Your task to perform on an android device: turn on airplane mode Image 0: 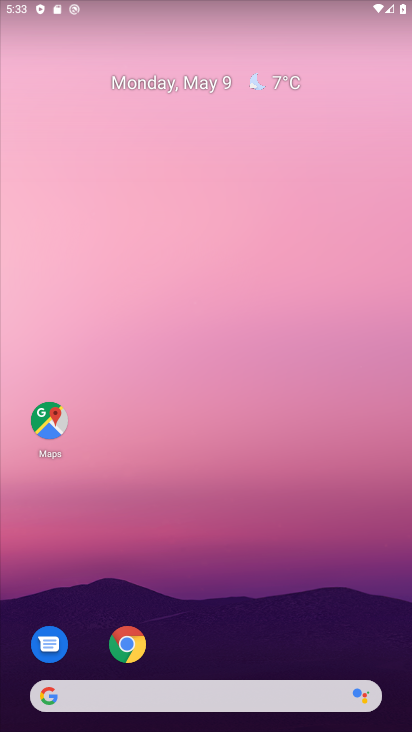
Step 0: drag from (226, 539) to (222, 105)
Your task to perform on an android device: turn on airplane mode Image 1: 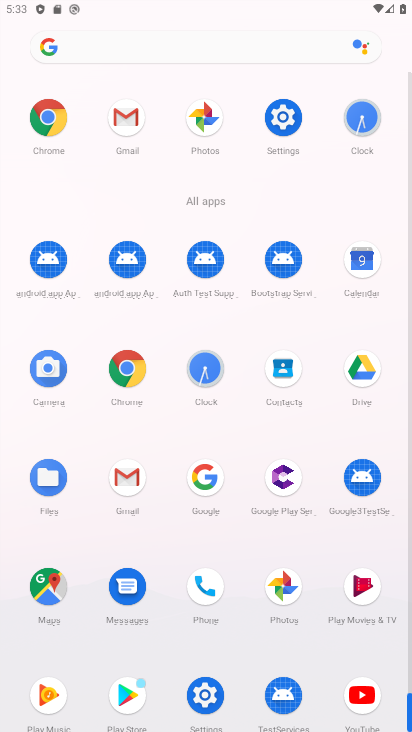
Step 1: click (281, 111)
Your task to perform on an android device: turn on airplane mode Image 2: 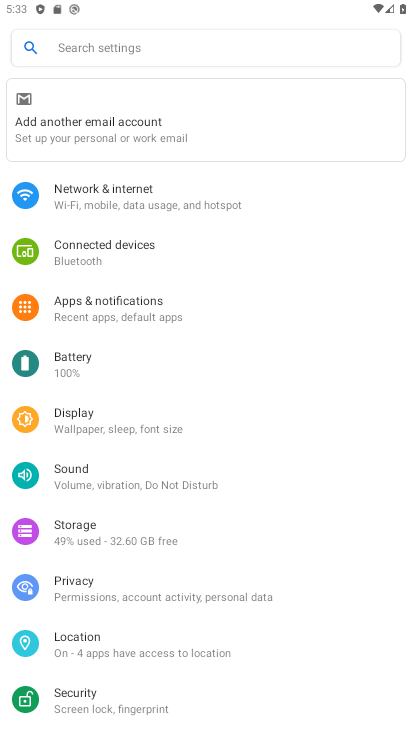
Step 2: click (149, 192)
Your task to perform on an android device: turn on airplane mode Image 3: 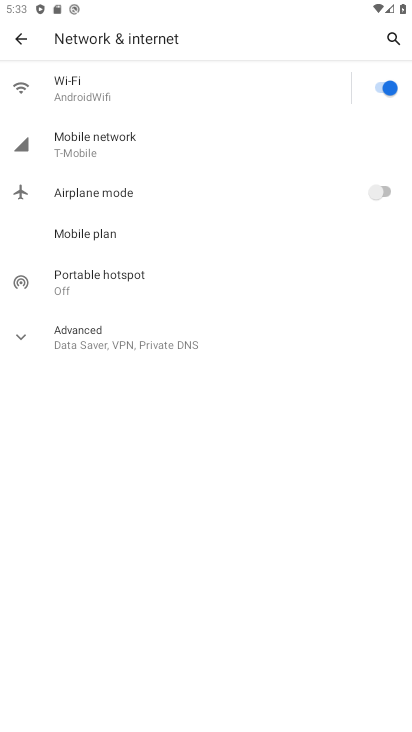
Step 3: click (392, 192)
Your task to perform on an android device: turn on airplane mode Image 4: 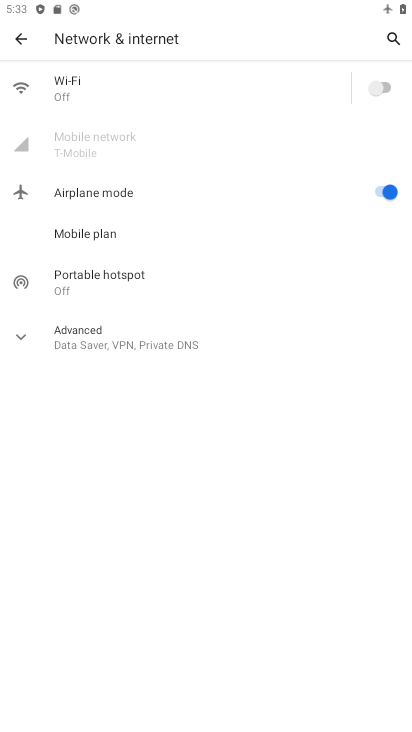
Step 4: task complete